Your task to perform on an android device: Go to ESPN.com Image 0: 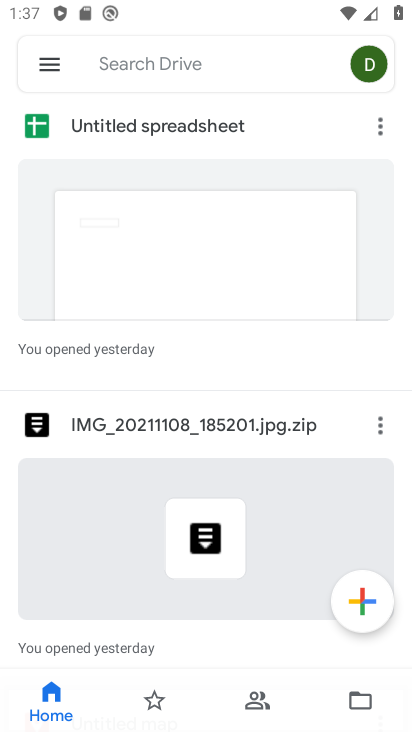
Step 0: press home button
Your task to perform on an android device: Go to ESPN.com Image 1: 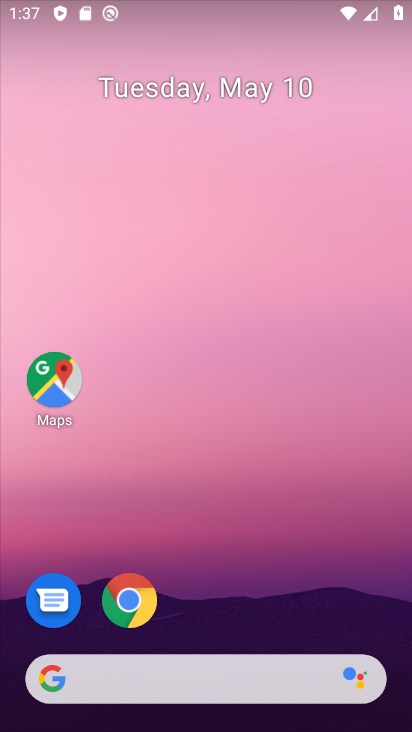
Step 1: click (117, 622)
Your task to perform on an android device: Go to ESPN.com Image 2: 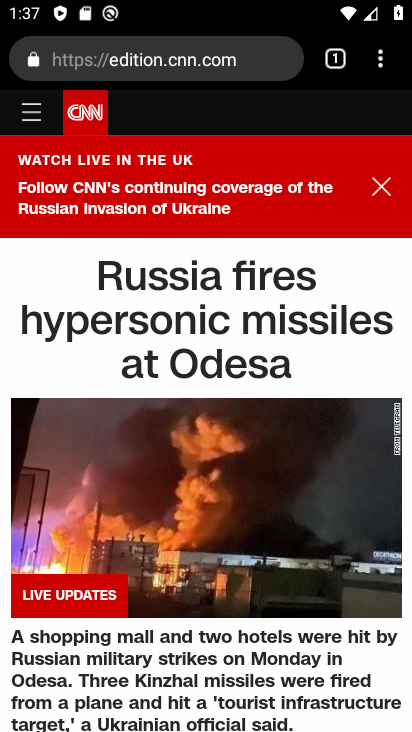
Step 2: click (249, 62)
Your task to perform on an android device: Go to ESPN.com Image 3: 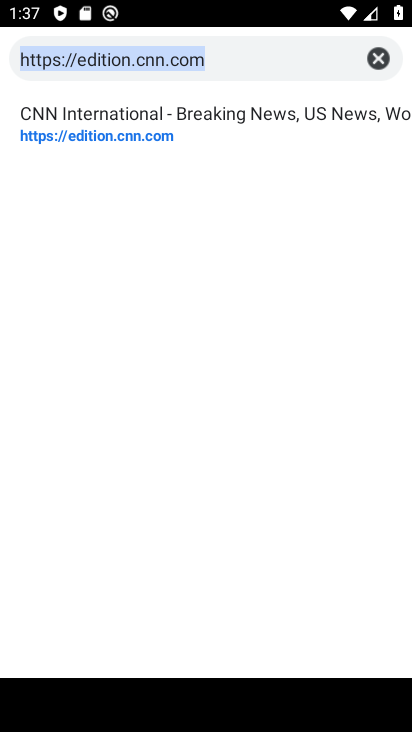
Step 3: type "espn.com"
Your task to perform on an android device: Go to ESPN.com Image 4: 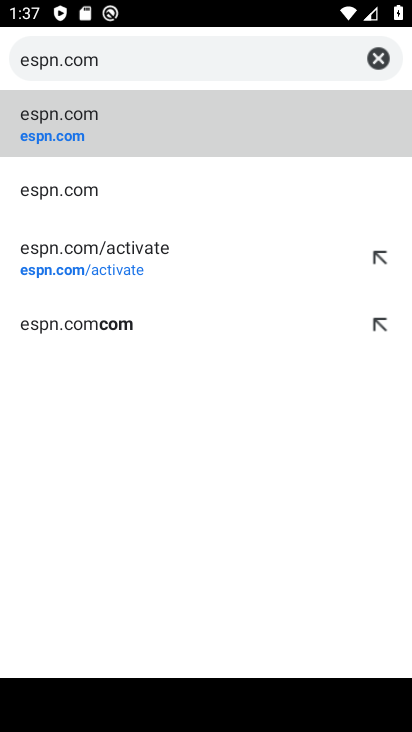
Step 4: click (73, 135)
Your task to perform on an android device: Go to ESPN.com Image 5: 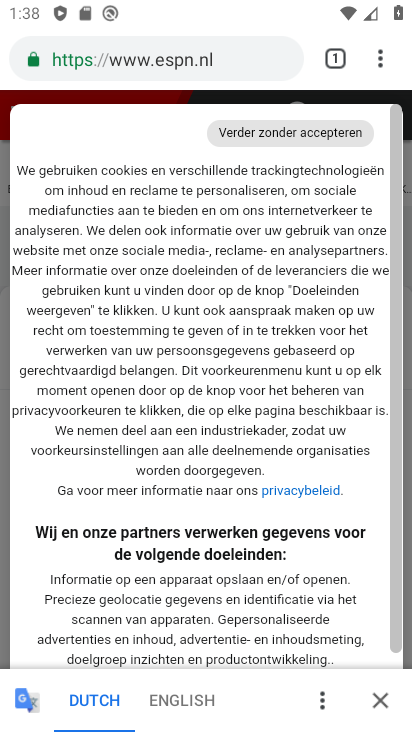
Step 5: task complete